Your task to perform on an android device: turn on translation in the chrome app Image 0: 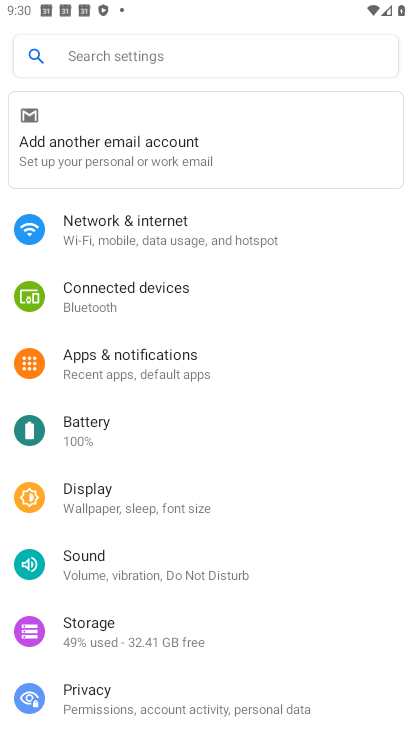
Step 0: press home button
Your task to perform on an android device: turn on translation in the chrome app Image 1: 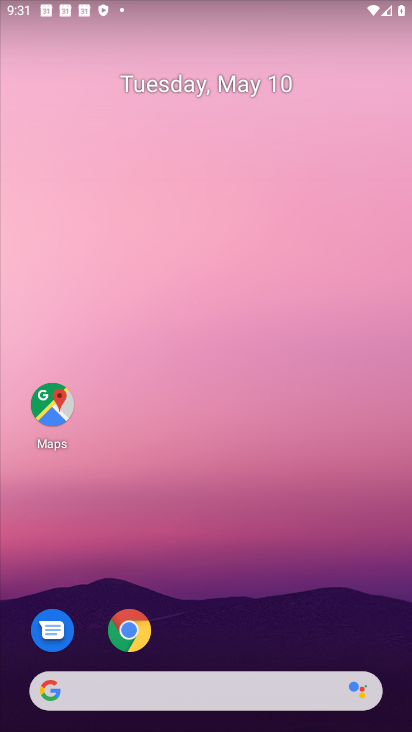
Step 1: click (126, 631)
Your task to perform on an android device: turn on translation in the chrome app Image 2: 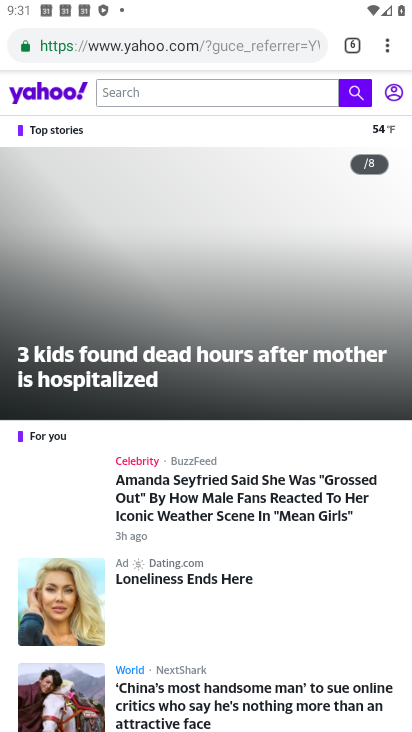
Step 2: click (389, 40)
Your task to perform on an android device: turn on translation in the chrome app Image 3: 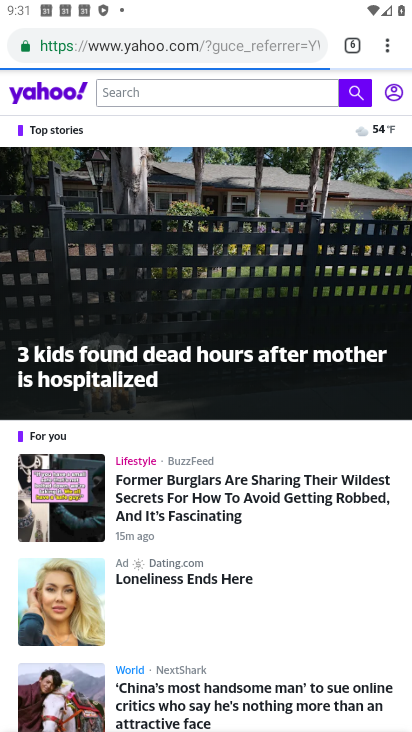
Step 3: click (386, 44)
Your task to perform on an android device: turn on translation in the chrome app Image 4: 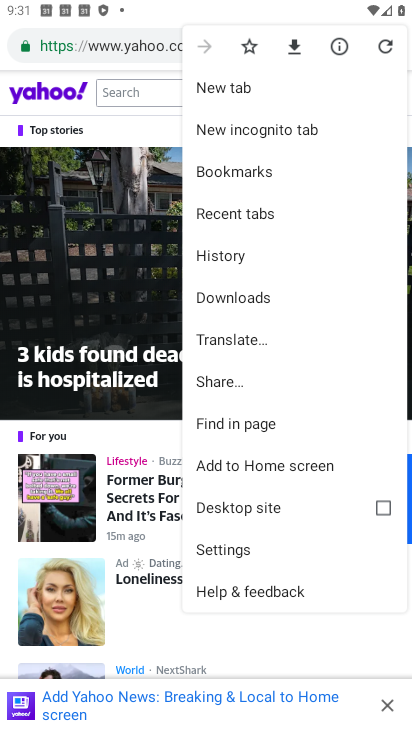
Step 4: click (254, 552)
Your task to perform on an android device: turn on translation in the chrome app Image 5: 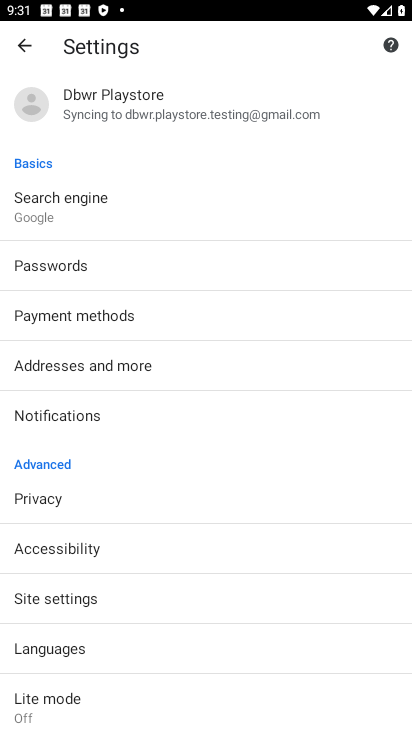
Step 5: click (85, 634)
Your task to perform on an android device: turn on translation in the chrome app Image 6: 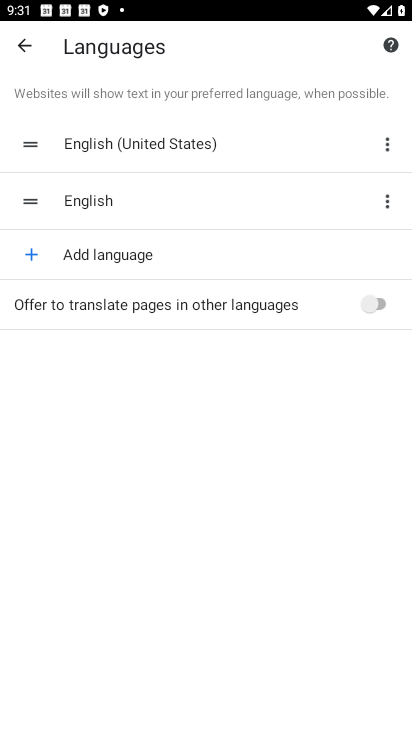
Step 6: click (376, 306)
Your task to perform on an android device: turn on translation in the chrome app Image 7: 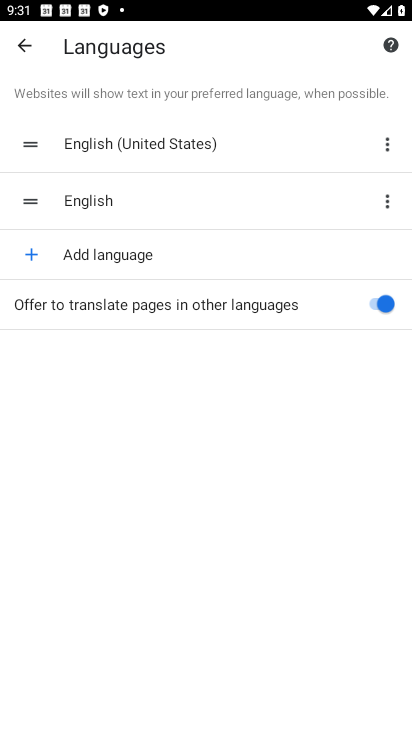
Step 7: task complete